Your task to perform on an android device: Is it going to rain today? Image 0: 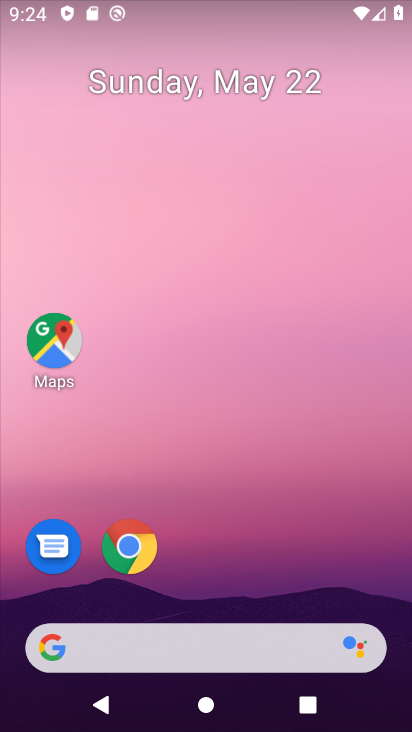
Step 0: drag from (256, 595) to (252, 172)
Your task to perform on an android device: Is it going to rain today? Image 1: 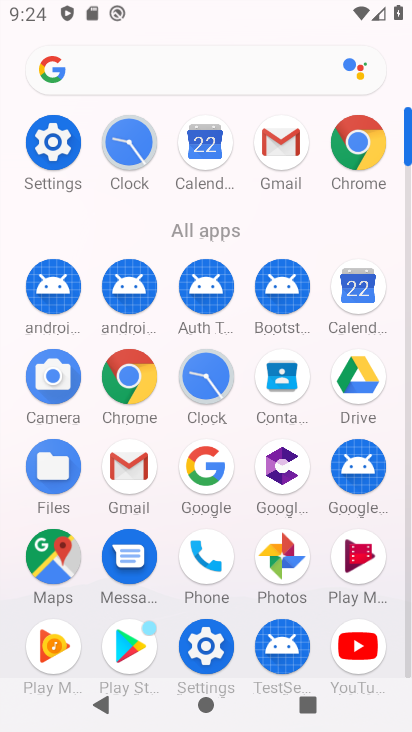
Step 1: click (360, 159)
Your task to perform on an android device: Is it going to rain today? Image 2: 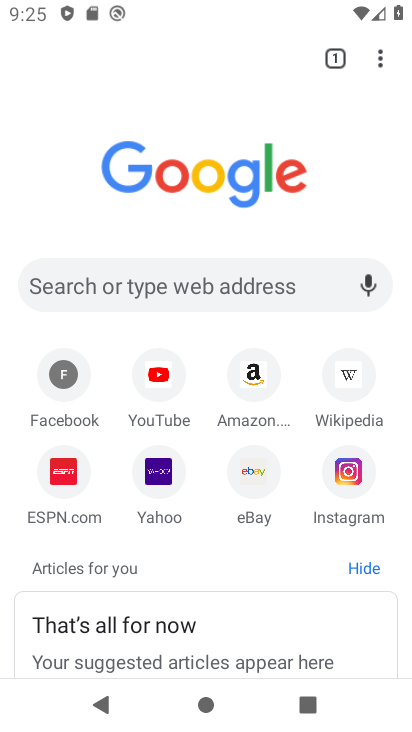
Step 2: click (266, 295)
Your task to perform on an android device: Is it going to rain today? Image 3: 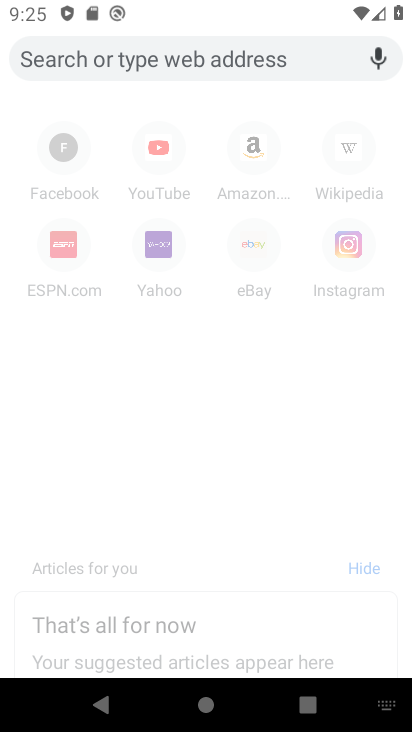
Step 3: type "Is it going to rain today?"
Your task to perform on an android device: Is it going to rain today? Image 4: 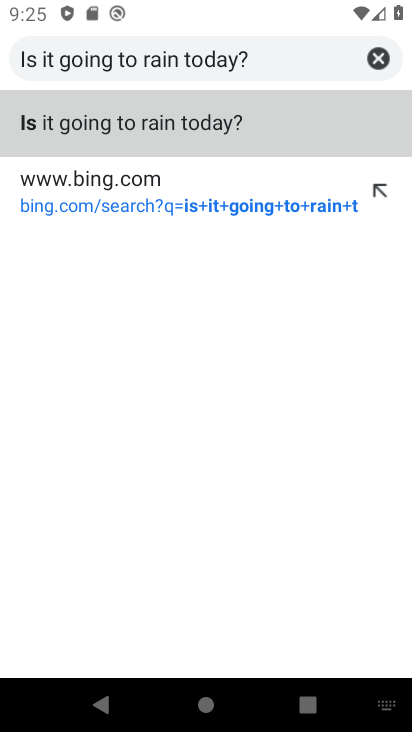
Step 4: click (208, 119)
Your task to perform on an android device: Is it going to rain today? Image 5: 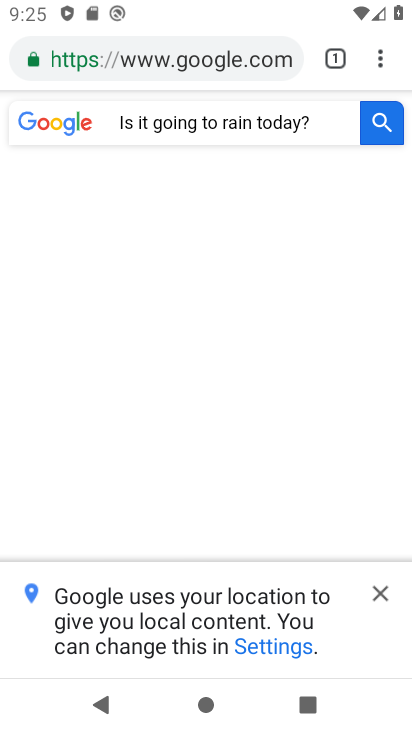
Step 5: click (383, 589)
Your task to perform on an android device: Is it going to rain today? Image 6: 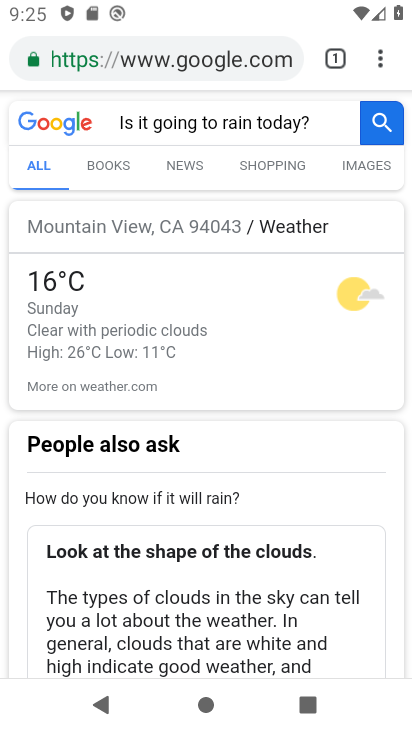
Step 6: task complete